Your task to perform on an android device: Is it going to rain tomorrow? Image 0: 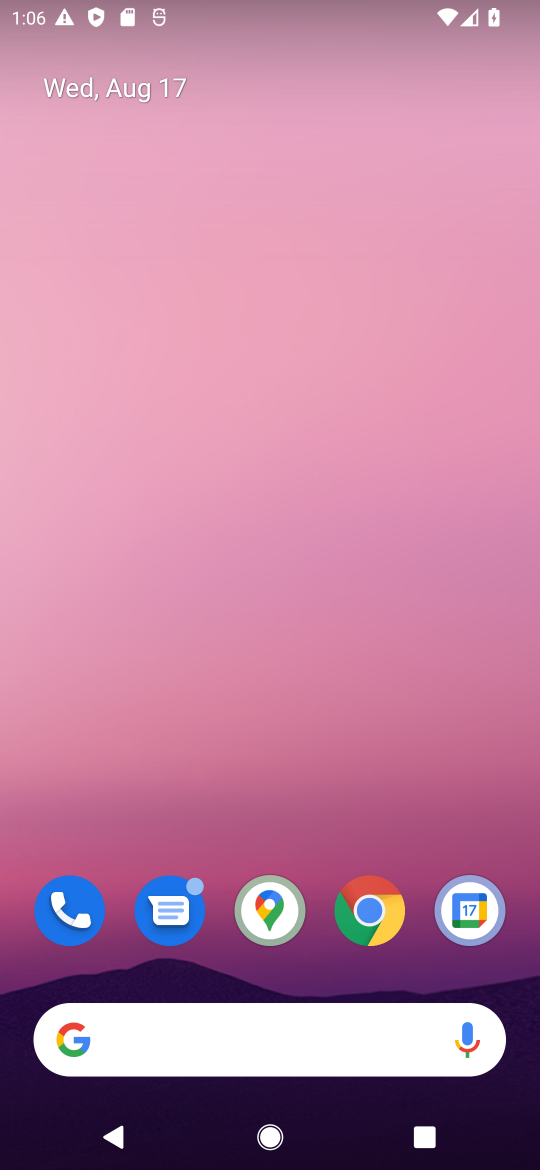
Step 0: drag from (230, 972) to (384, 104)
Your task to perform on an android device: Is it going to rain tomorrow? Image 1: 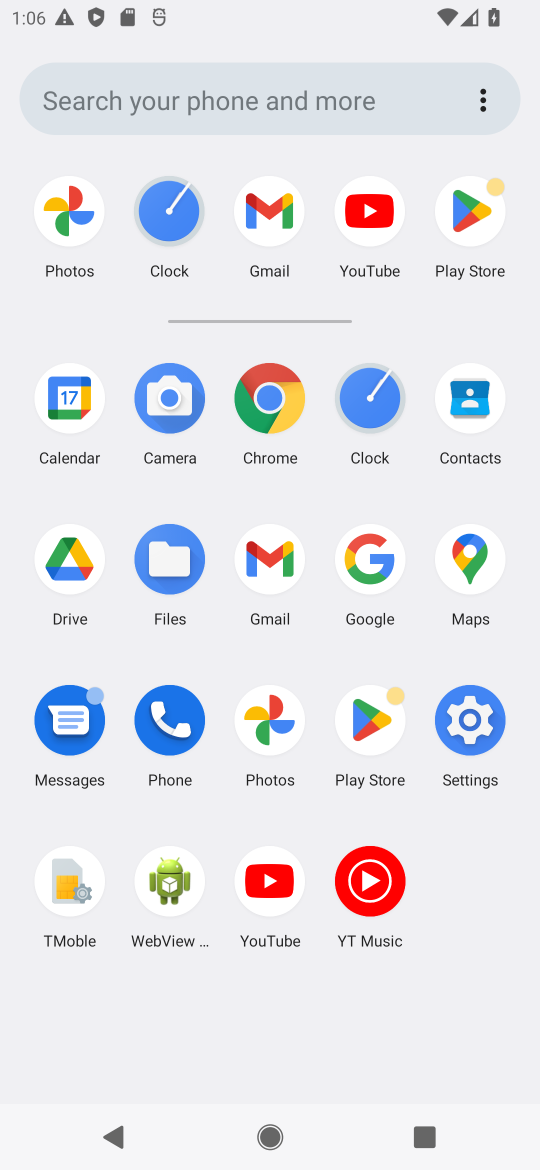
Step 1: click (185, 109)
Your task to perform on an android device: Is it going to rain tomorrow? Image 2: 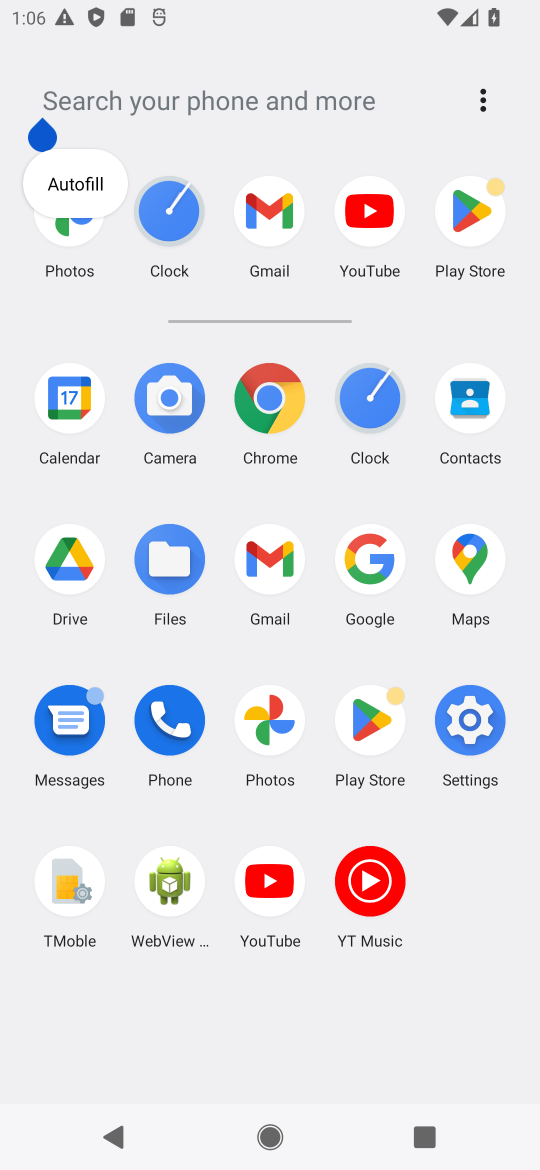
Step 2: click (194, 107)
Your task to perform on an android device: Is it going to rain tomorrow? Image 3: 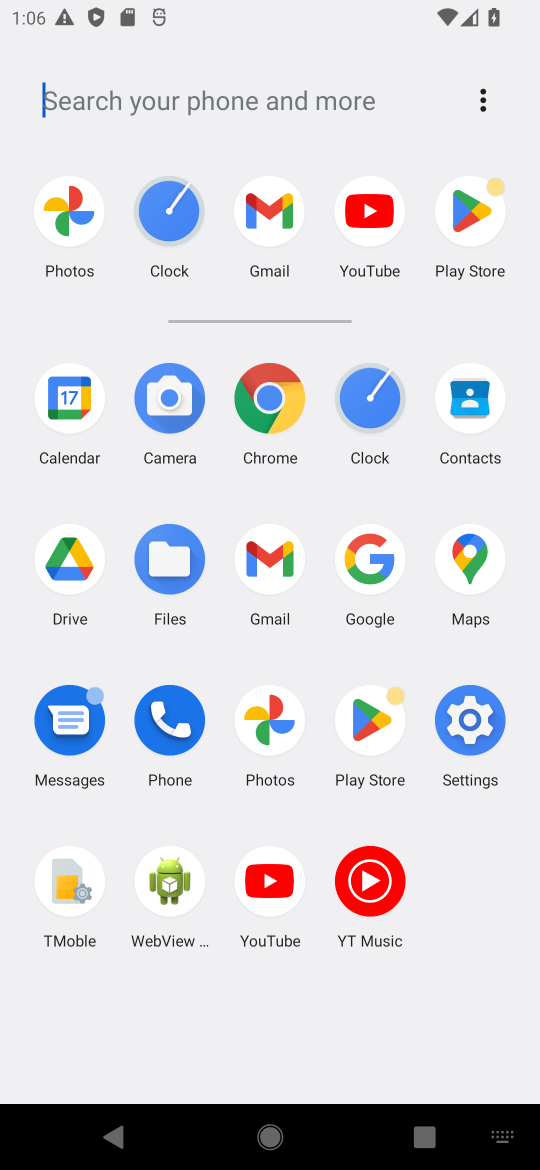
Step 3: click (372, 553)
Your task to perform on an android device: Is it going to rain tomorrow? Image 4: 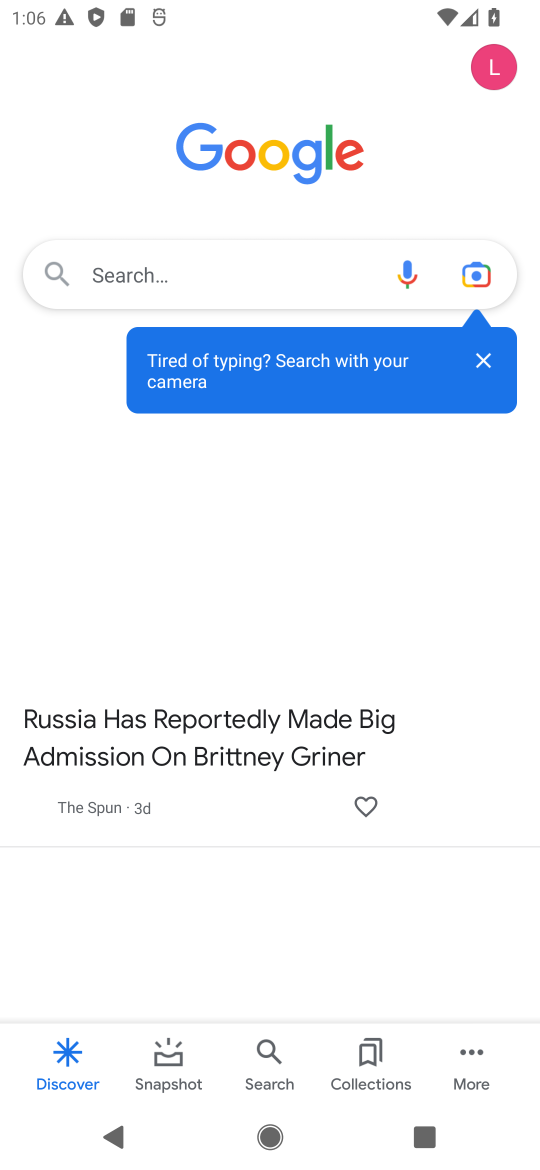
Step 4: click (182, 271)
Your task to perform on an android device: Is it going to rain tomorrow? Image 5: 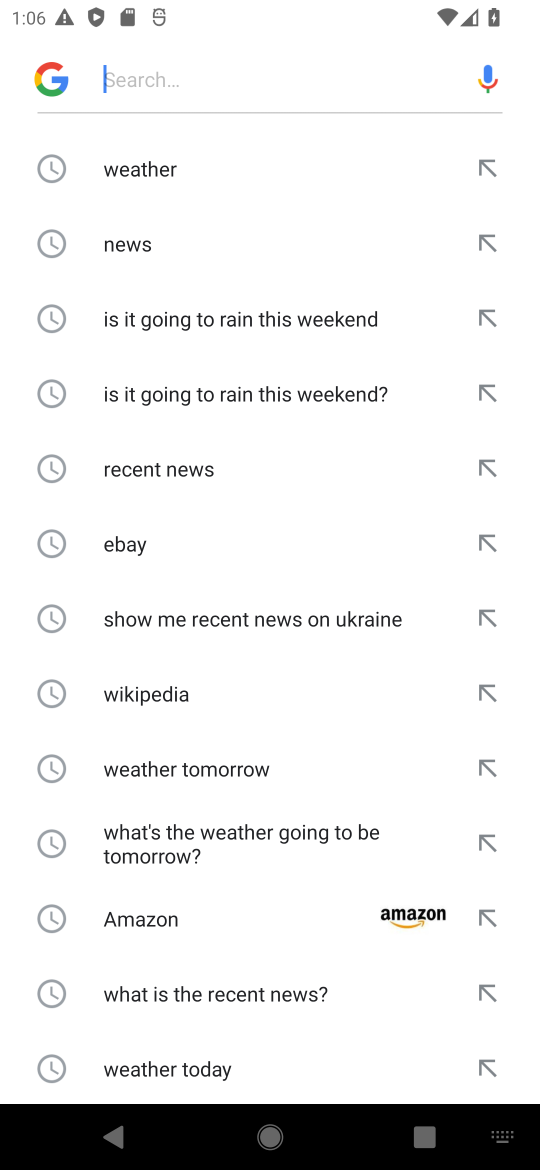
Step 5: click (144, 153)
Your task to perform on an android device: Is it going to rain tomorrow? Image 6: 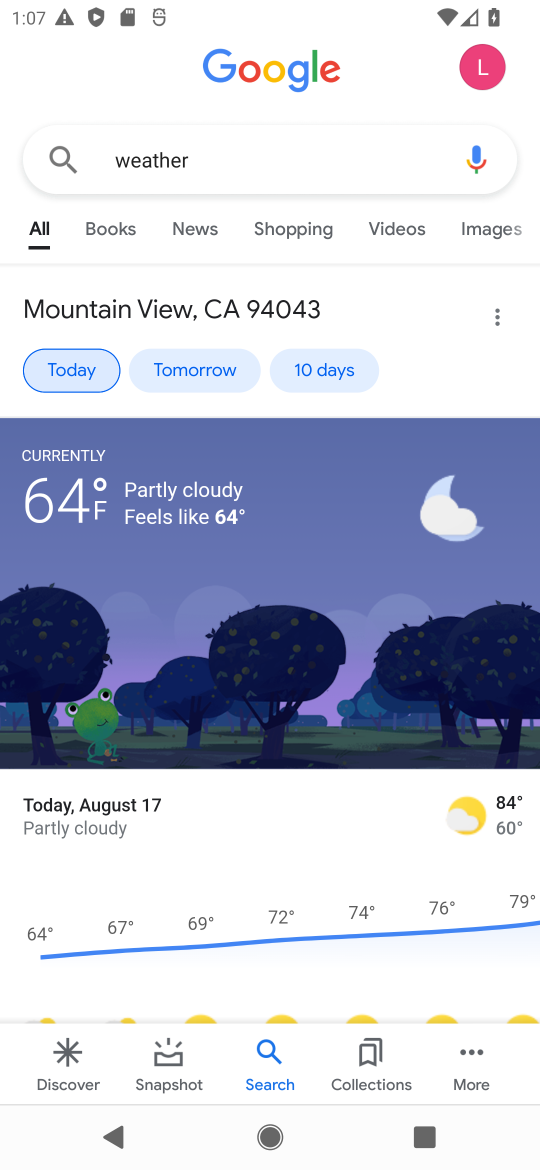
Step 6: click (189, 365)
Your task to perform on an android device: Is it going to rain tomorrow? Image 7: 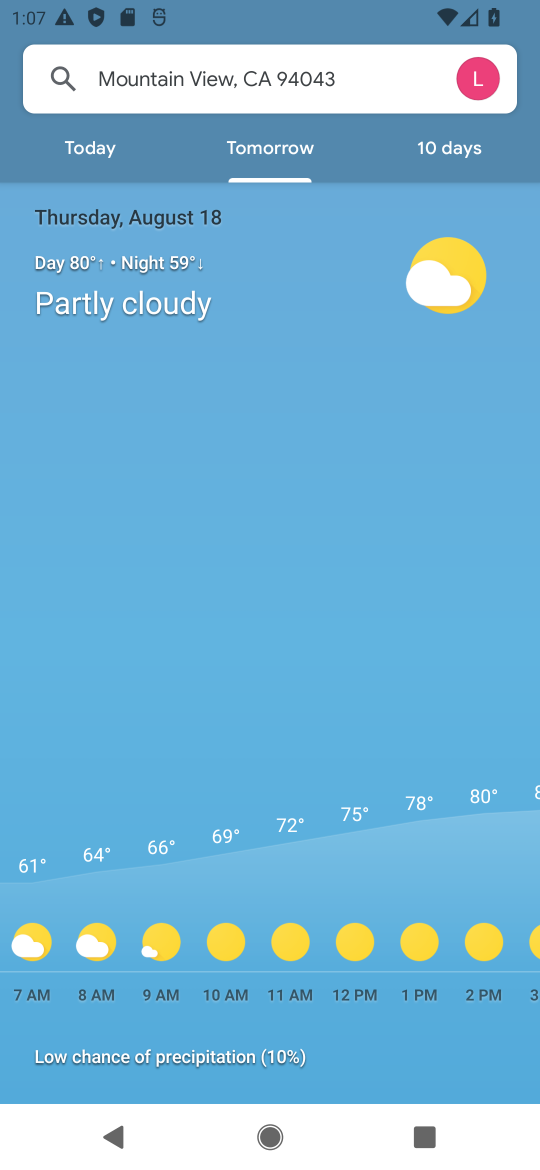
Step 7: task complete